Your task to perform on an android device: turn off location Image 0: 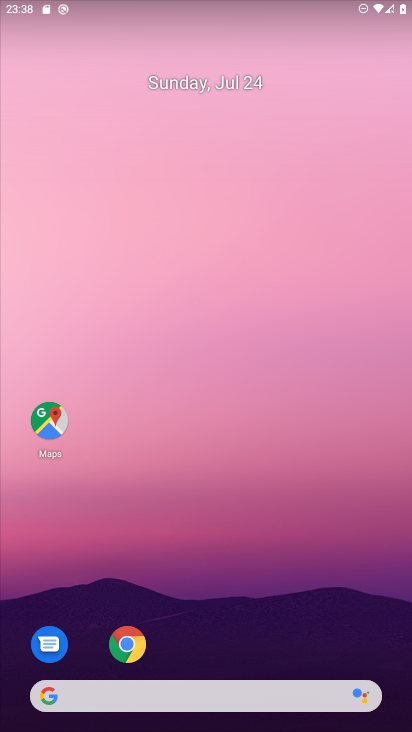
Step 0: drag from (394, 638) to (319, 241)
Your task to perform on an android device: turn off location Image 1: 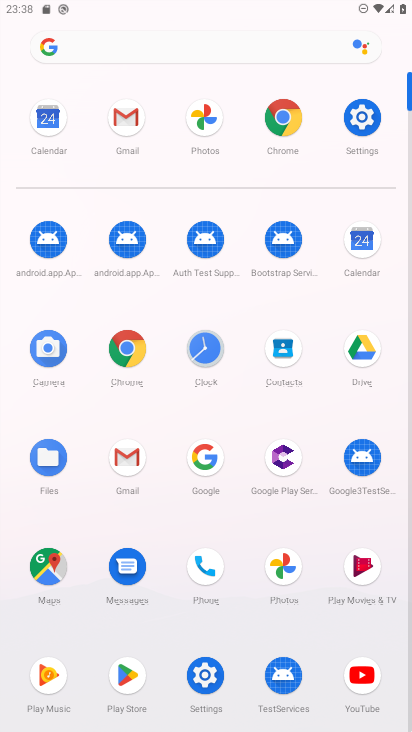
Step 1: click (202, 672)
Your task to perform on an android device: turn off location Image 2: 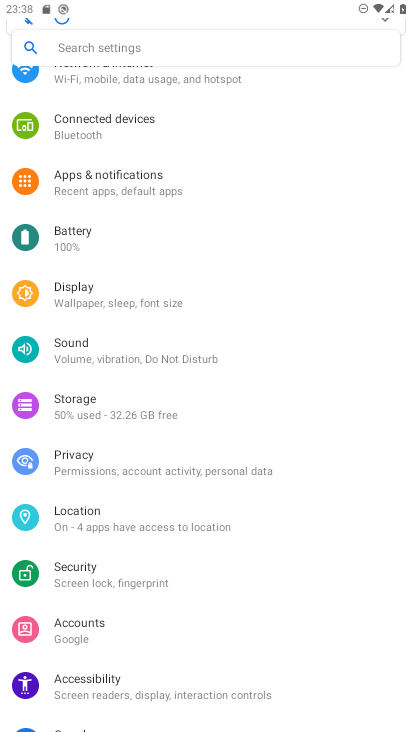
Step 2: click (73, 522)
Your task to perform on an android device: turn off location Image 3: 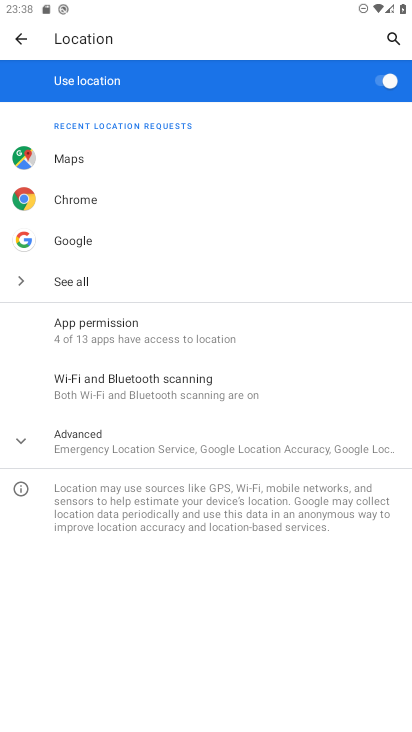
Step 3: click (381, 83)
Your task to perform on an android device: turn off location Image 4: 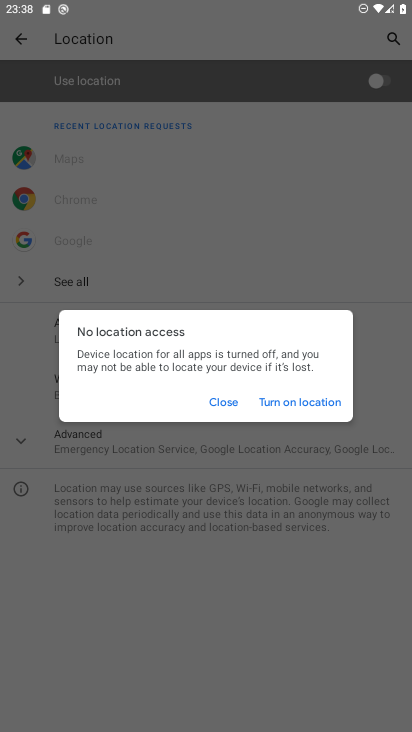
Step 4: click (228, 400)
Your task to perform on an android device: turn off location Image 5: 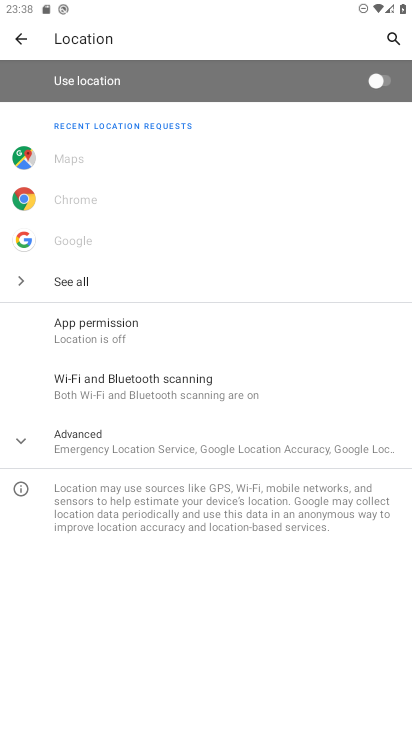
Step 5: task complete